Your task to perform on an android device: Go to calendar. Show me events next week Image 0: 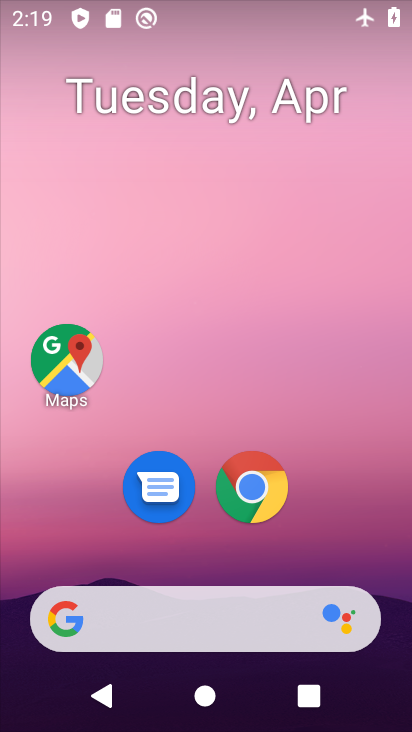
Step 0: drag from (322, 504) to (343, 132)
Your task to perform on an android device: Go to calendar. Show me events next week Image 1: 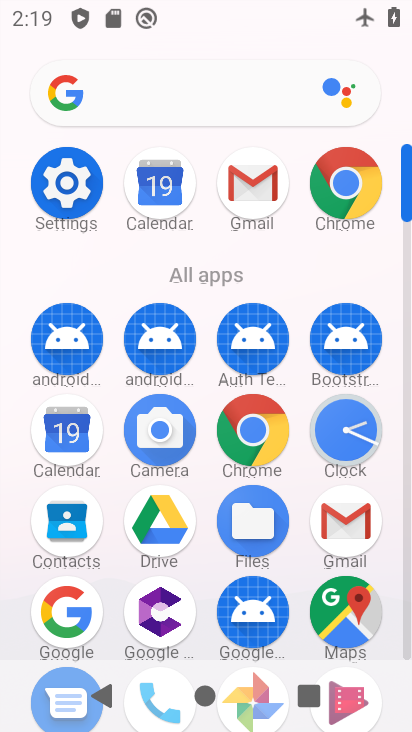
Step 1: click (66, 461)
Your task to perform on an android device: Go to calendar. Show me events next week Image 2: 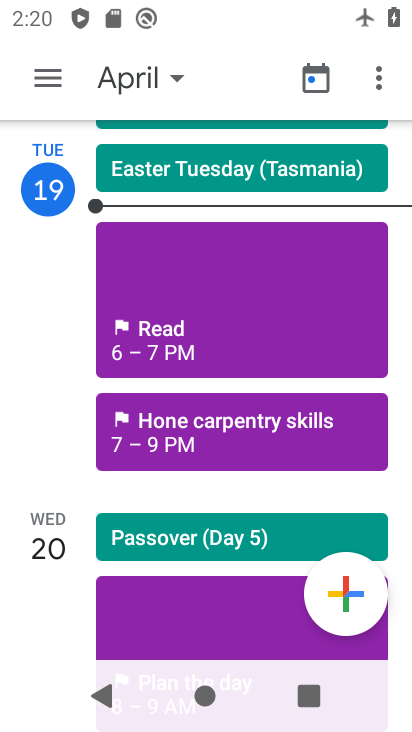
Step 2: click (151, 75)
Your task to perform on an android device: Go to calendar. Show me events next week Image 3: 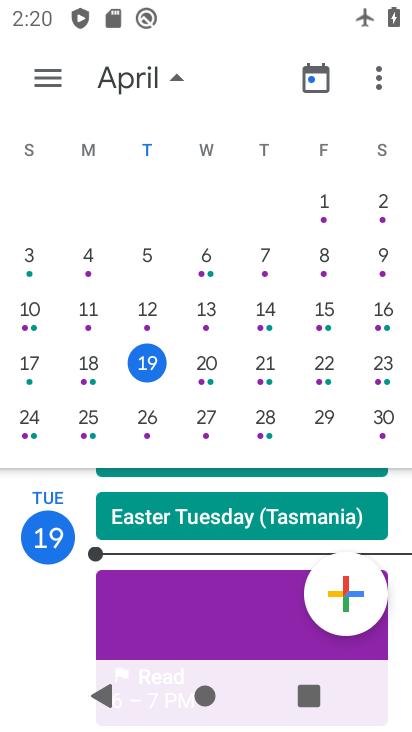
Step 3: click (29, 432)
Your task to perform on an android device: Go to calendar. Show me events next week Image 4: 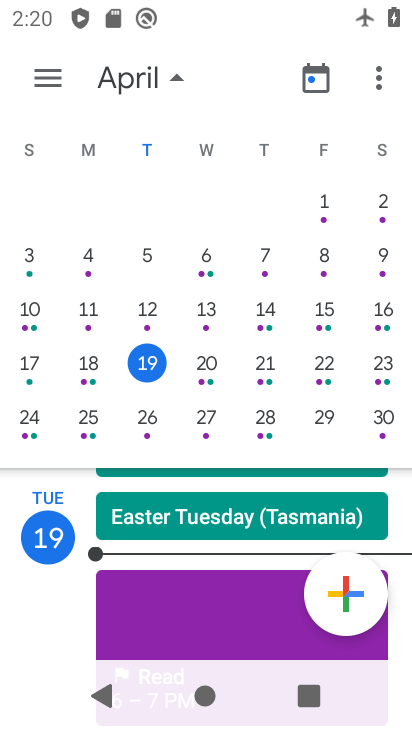
Step 4: click (96, 429)
Your task to perform on an android device: Go to calendar. Show me events next week Image 5: 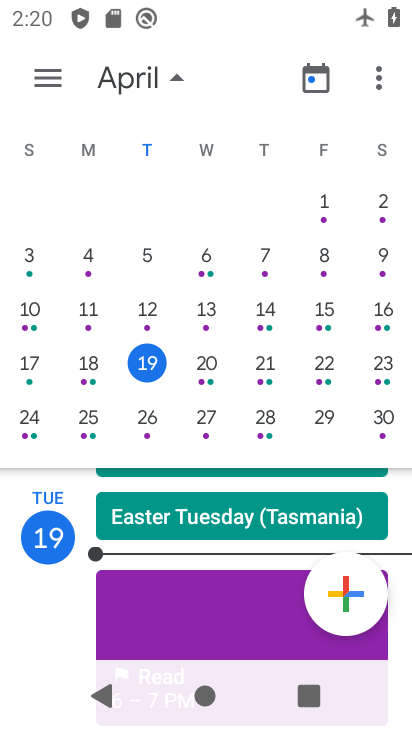
Step 5: click (82, 434)
Your task to perform on an android device: Go to calendar. Show me events next week Image 6: 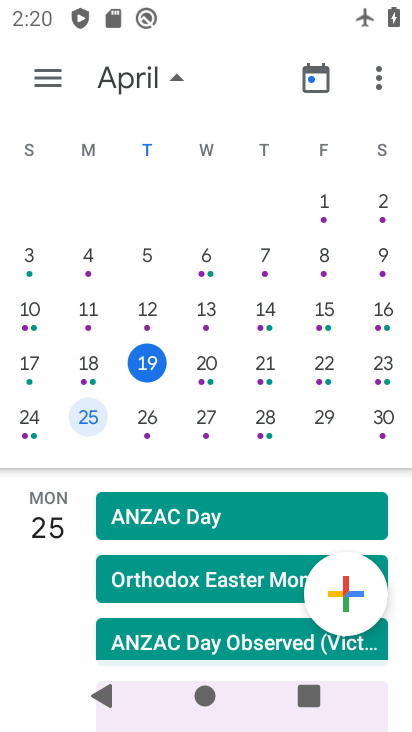
Step 6: click (150, 425)
Your task to perform on an android device: Go to calendar. Show me events next week Image 7: 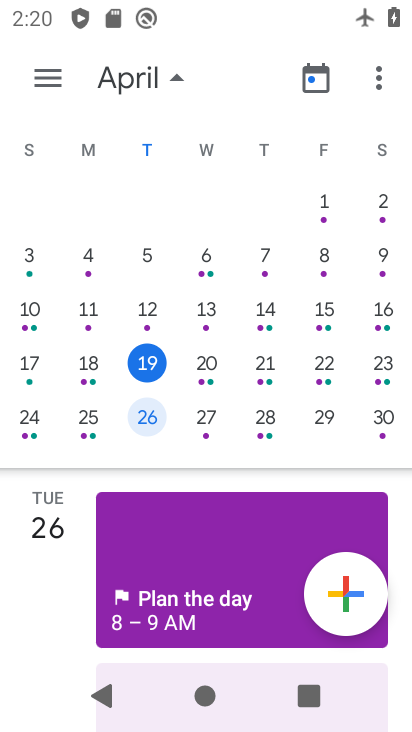
Step 7: click (207, 432)
Your task to perform on an android device: Go to calendar. Show me events next week Image 8: 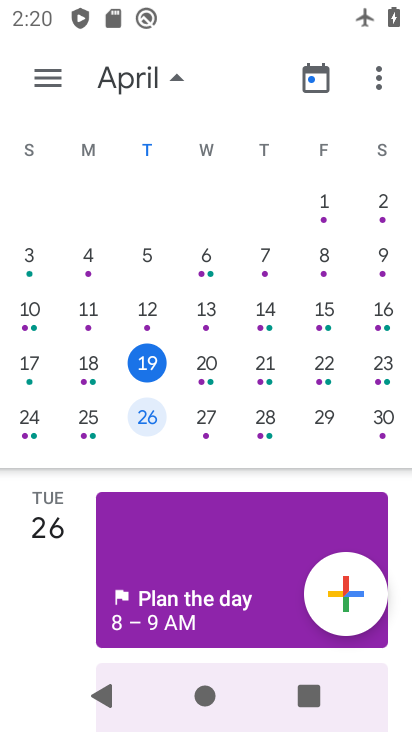
Step 8: click (262, 432)
Your task to perform on an android device: Go to calendar. Show me events next week Image 9: 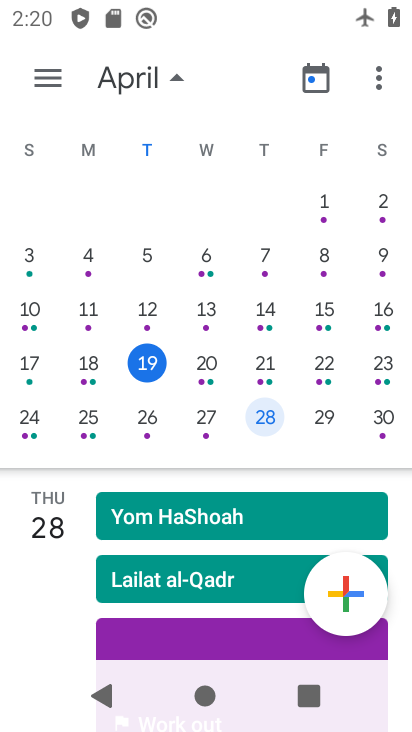
Step 9: click (325, 426)
Your task to perform on an android device: Go to calendar. Show me events next week Image 10: 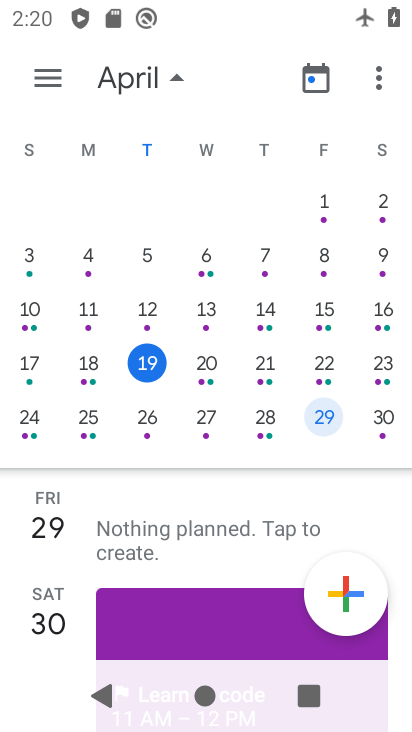
Step 10: click (383, 430)
Your task to perform on an android device: Go to calendar. Show me events next week Image 11: 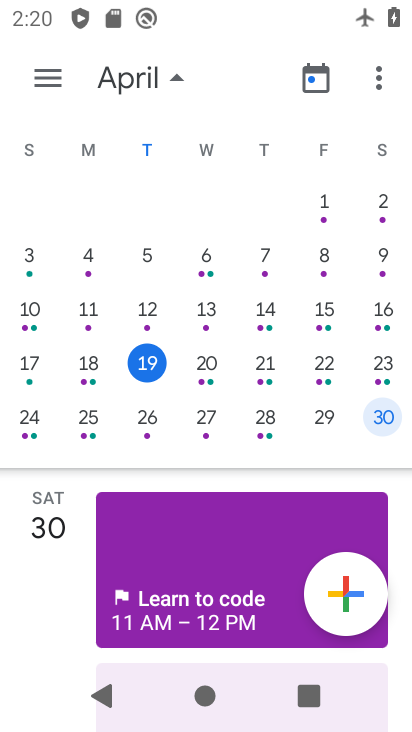
Step 11: task complete